Your task to perform on an android device: add a label to a message in the gmail app Image 0: 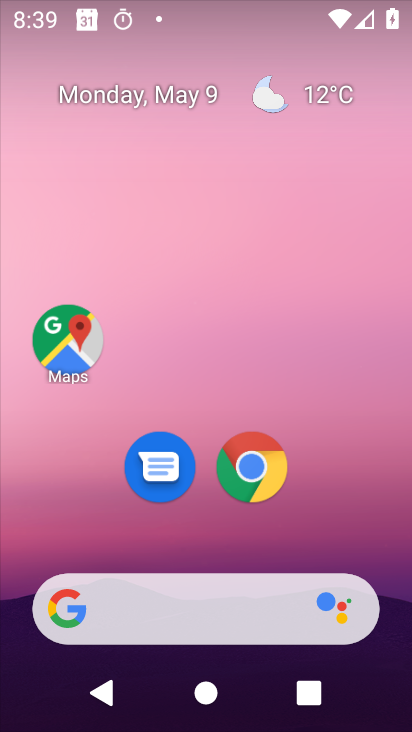
Step 0: drag from (350, 557) to (379, 49)
Your task to perform on an android device: add a label to a message in the gmail app Image 1: 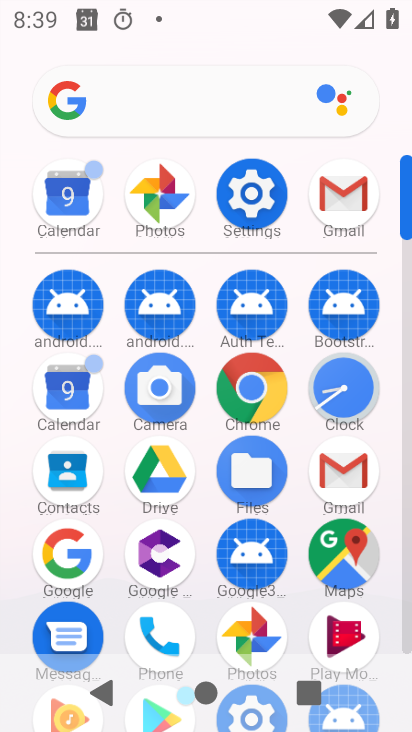
Step 1: click (354, 201)
Your task to perform on an android device: add a label to a message in the gmail app Image 2: 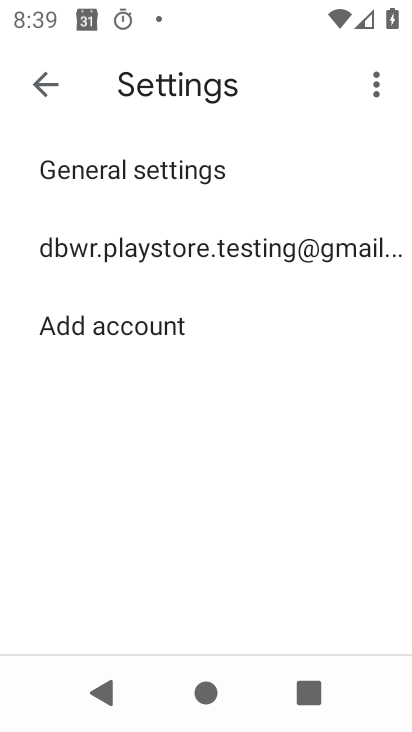
Step 2: click (48, 84)
Your task to perform on an android device: add a label to a message in the gmail app Image 3: 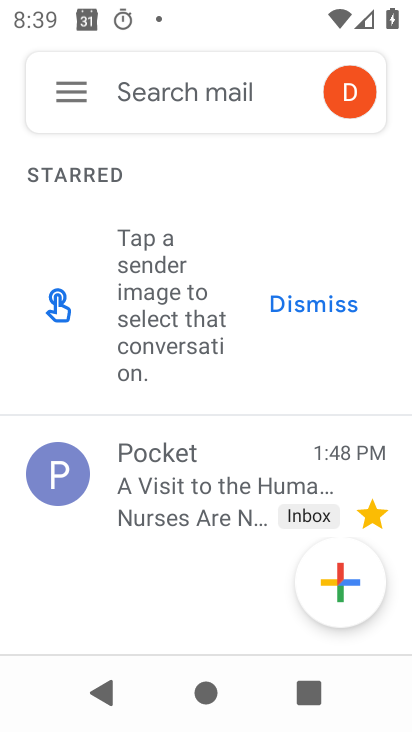
Step 3: click (65, 94)
Your task to perform on an android device: add a label to a message in the gmail app Image 4: 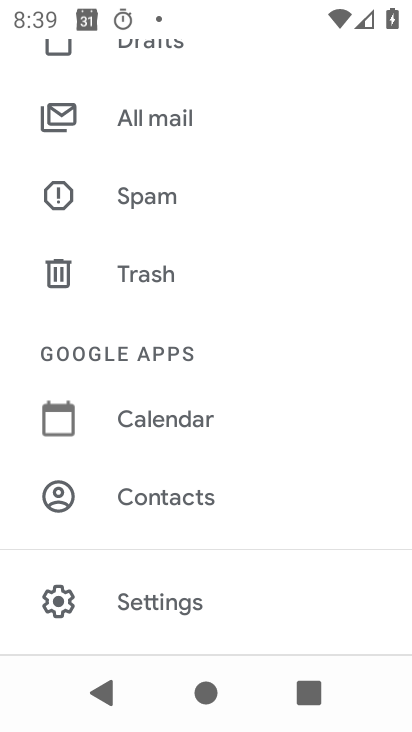
Step 4: click (155, 129)
Your task to perform on an android device: add a label to a message in the gmail app Image 5: 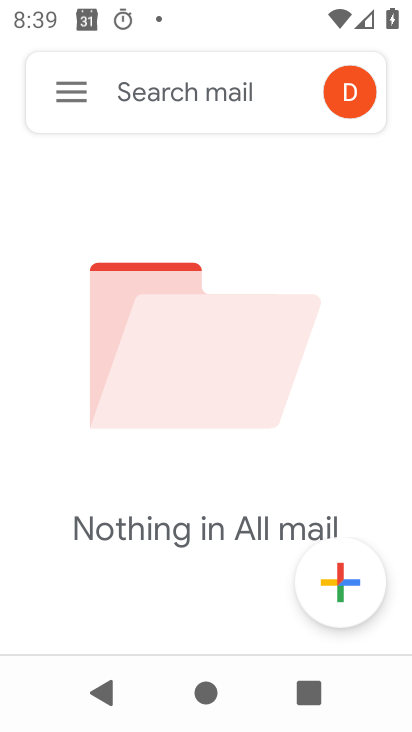
Step 5: drag from (216, 466) to (208, 219)
Your task to perform on an android device: add a label to a message in the gmail app Image 6: 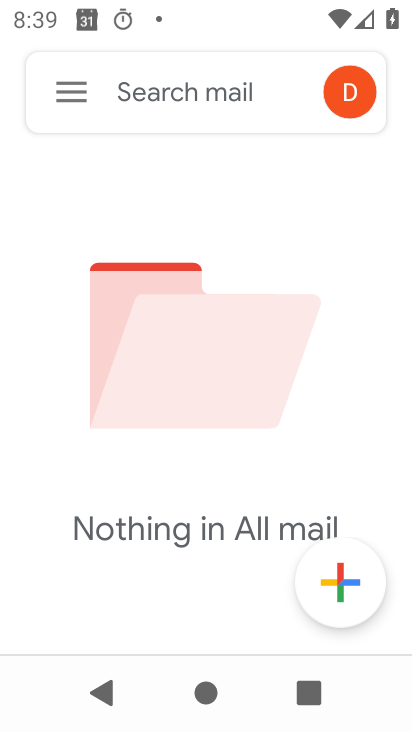
Step 6: click (59, 95)
Your task to perform on an android device: add a label to a message in the gmail app Image 7: 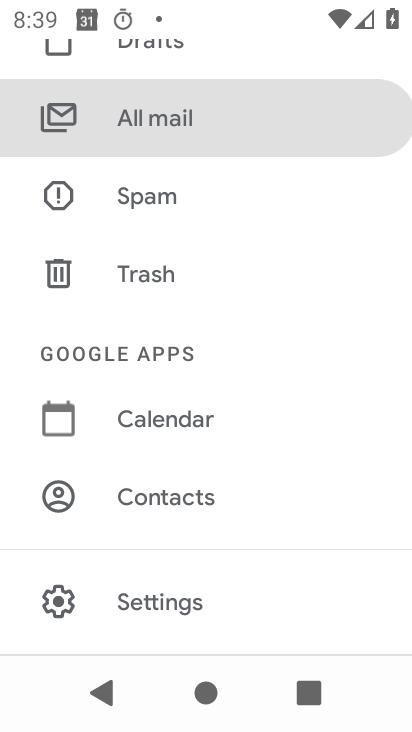
Step 7: drag from (244, 254) to (239, 611)
Your task to perform on an android device: add a label to a message in the gmail app Image 8: 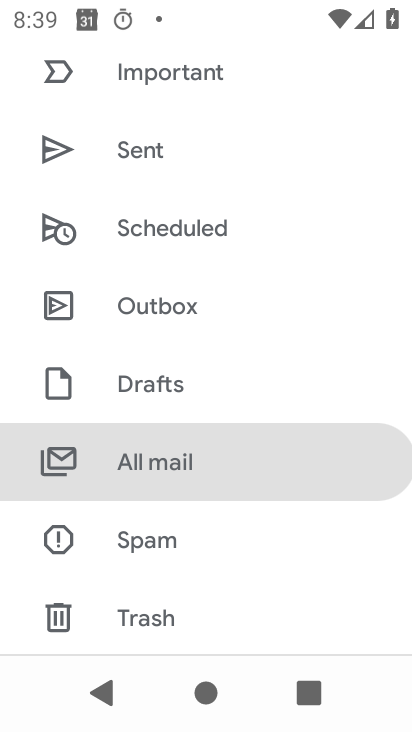
Step 8: drag from (160, 147) to (196, 574)
Your task to perform on an android device: add a label to a message in the gmail app Image 9: 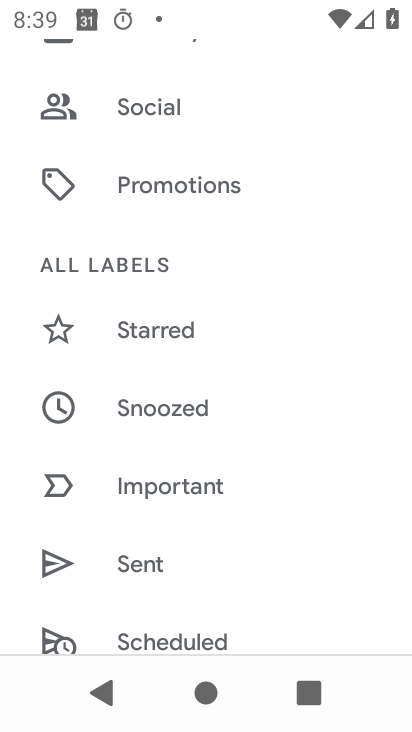
Step 9: click (159, 331)
Your task to perform on an android device: add a label to a message in the gmail app Image 10: 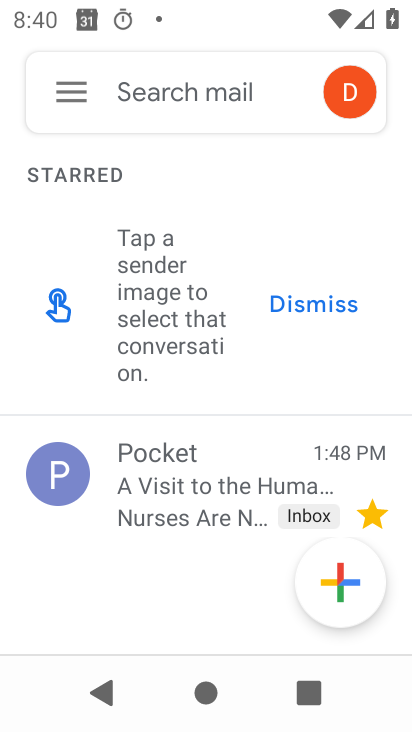
Step 10: click (222, 501)
Your task to perform on an android device: add a label to a message in the gmail app Image 11: 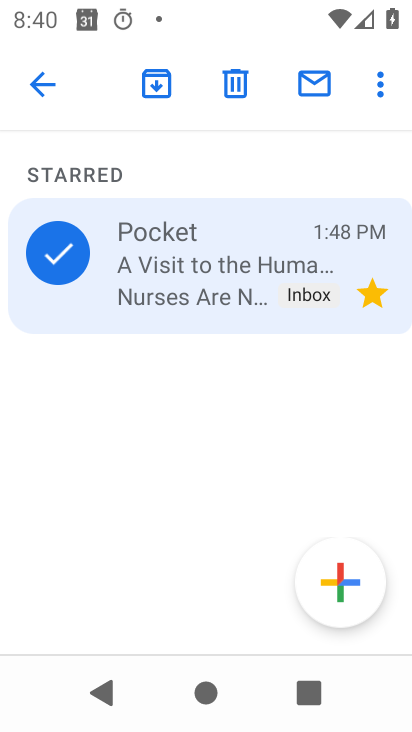
Step 11: task complete